Your task to perform on an android device: change the upload size in google photos Image 0: 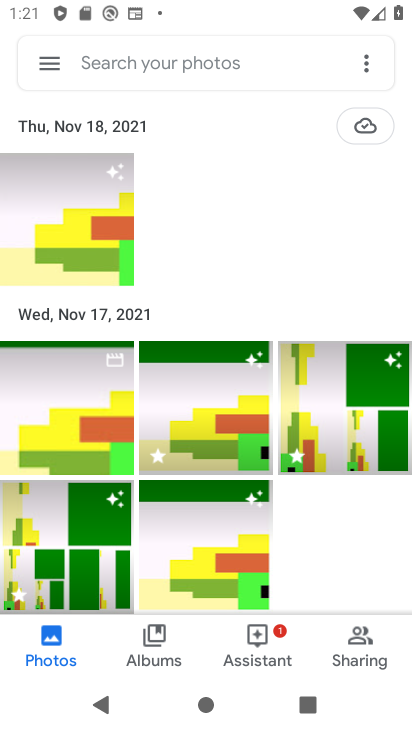
Step 0: click (54, 57)
Your task to perform on an android device: change the upload size in google photos Image 1: 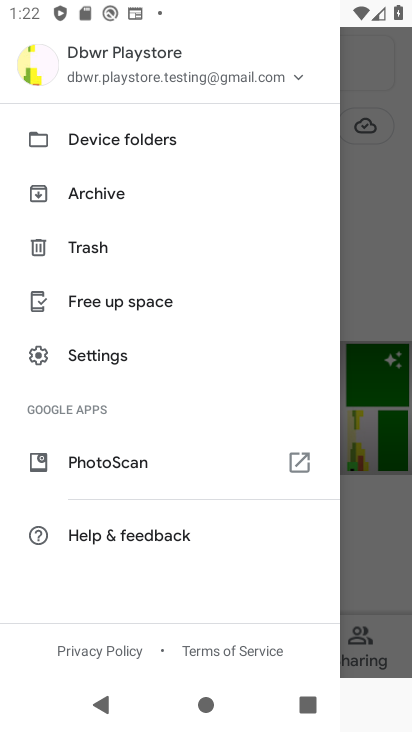
Step 1: click (116, 367)
Your task to perform on an android device: change the upload size in google photos Image 2: 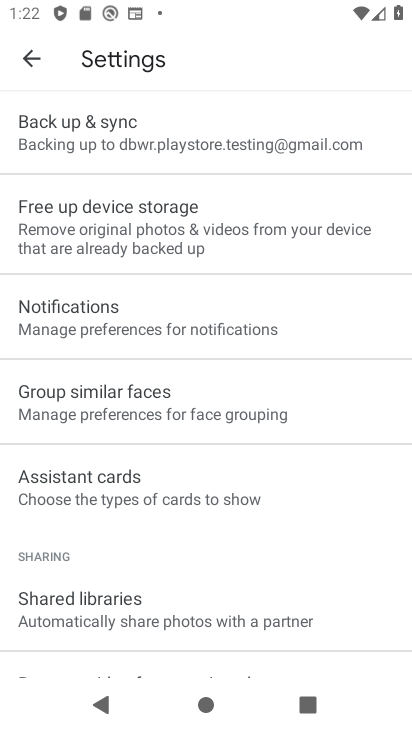
Step 2: click (193, 136)
Your task to perform on an android device: change the upload size in google photos Image 3: 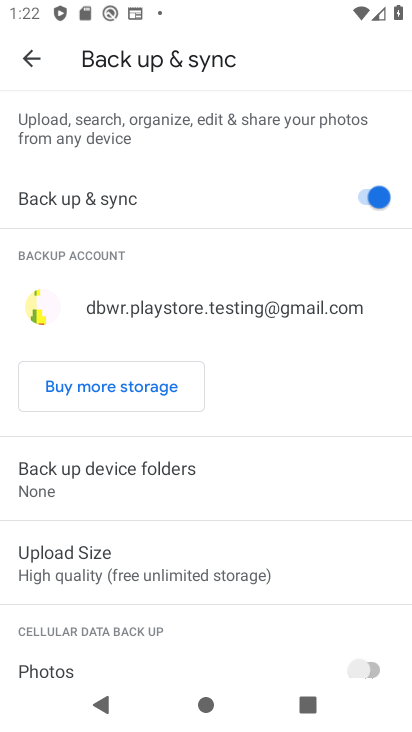
Step 3: click (120, 562)
Your task to perform on an android device: change the upload size in google photos Image 4: 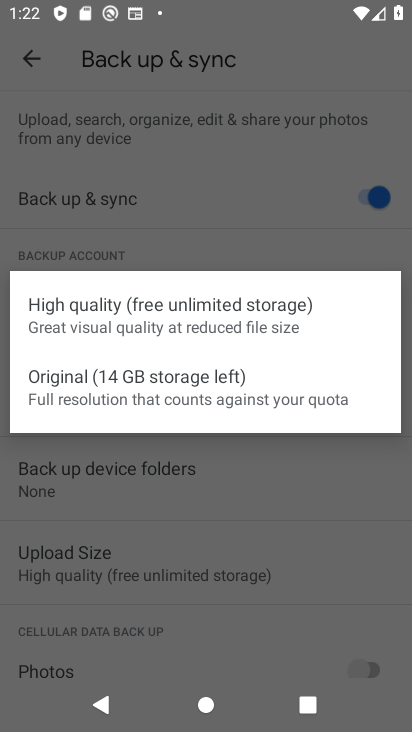
Step 4: click (289, 388)
Your task to perform on an android device: change the upload size in google photos Image 5: 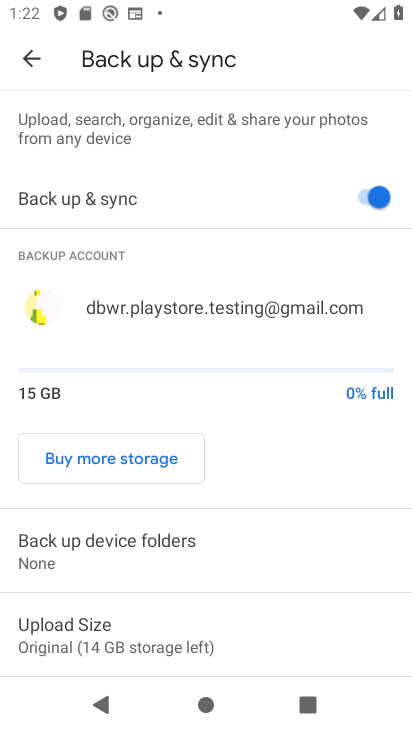
Step 5: task complete